Your task to perform on an android device: What's the weather going to be tomorrow? Image 0: 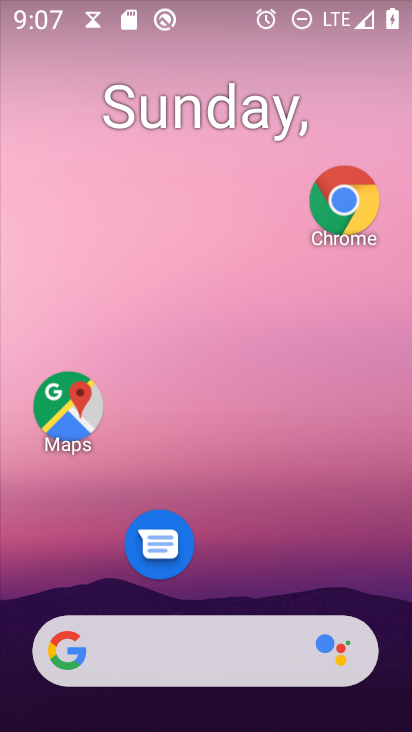
Step 0: click (134, 653)
Your task to perform on an android device: What's the weather going to be tomorrow? Image 1: 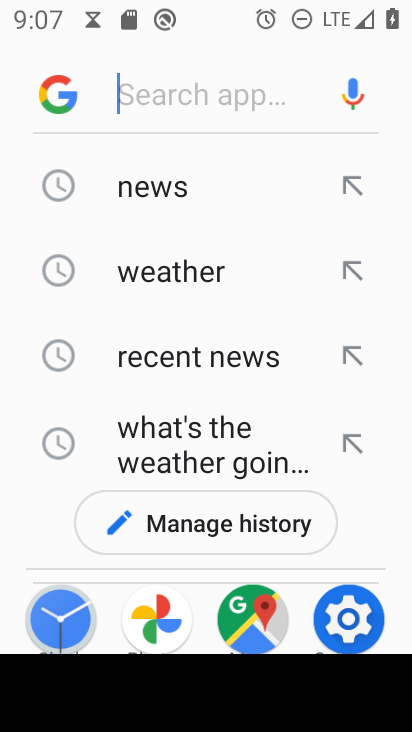
Step 1: type "what's the weather going to be tomorrow"
Your task to perform on an android device: What's the weather going to be tomorrow? Image 2: 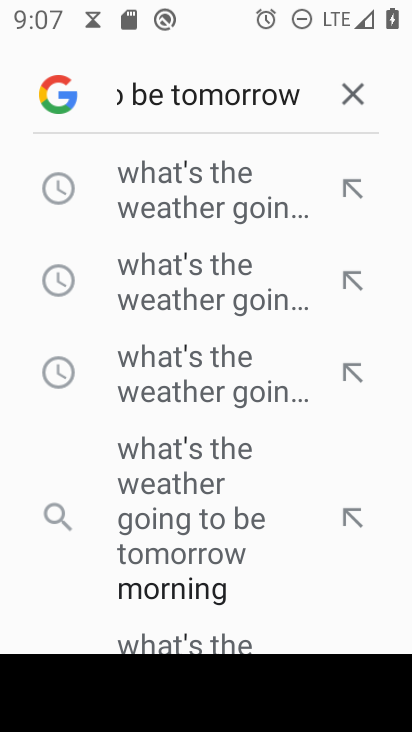
Step 2: click (224, 184)
Your task to perform on an android device: What's the weather going to be tomorrow? Image 3: 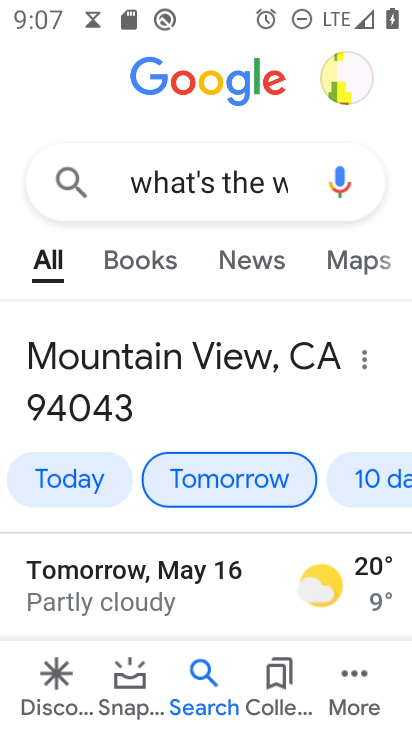
Step 3: task complete